Your task to perform on an android device: Open Reddit.com Image 0: 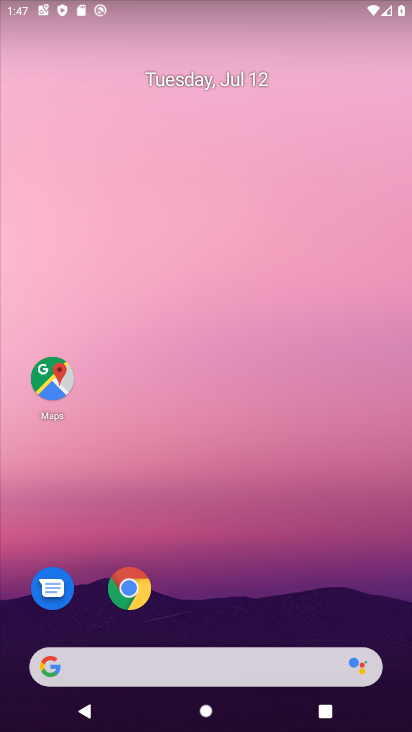
Step 0: drag from (213, 611) to (363, 214)
Your task to perform on an android device: Open Reddit.com Image 1: 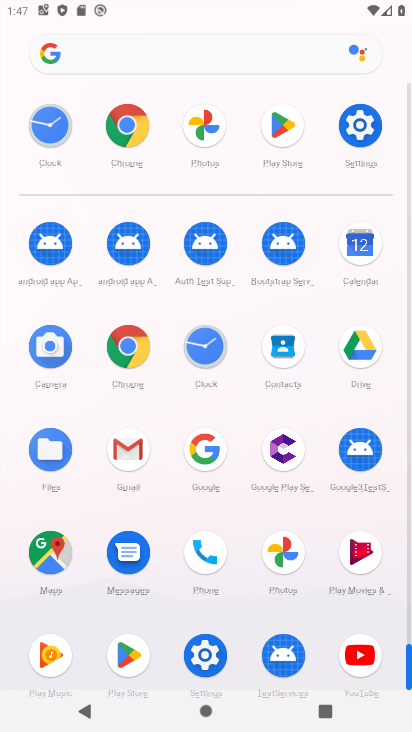
Step 1: click (227, 55)
Your task to perform on an android device: Open Reddit.com Image 2: 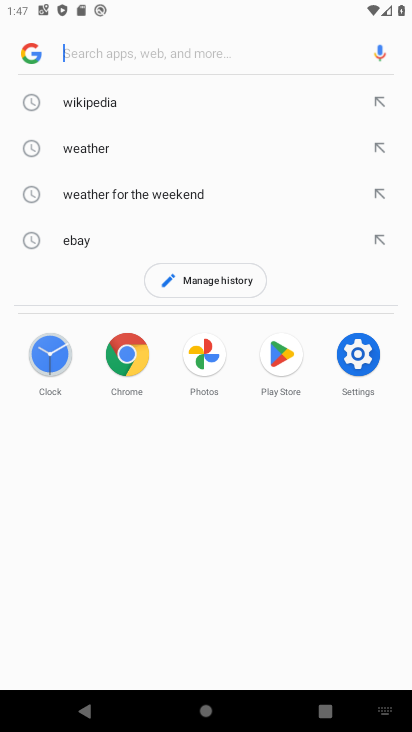
Step 2: type "raddit.com"
Your task to perform on an android device: Open Reddit.com Image 3: 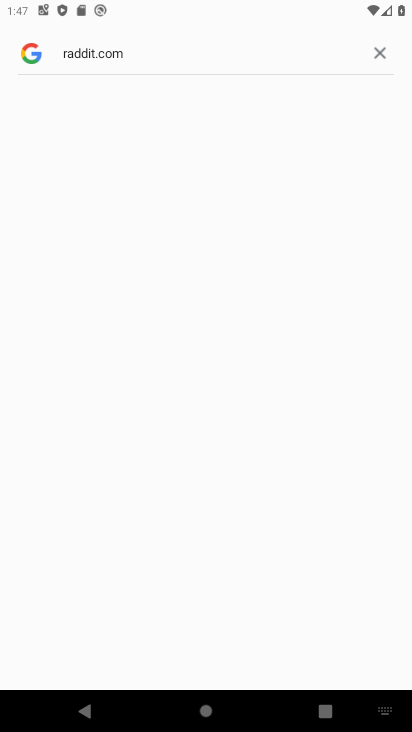
Step 3: click (127, 119)
Your task to perform on an android device: Open Reddit.com Image 4: 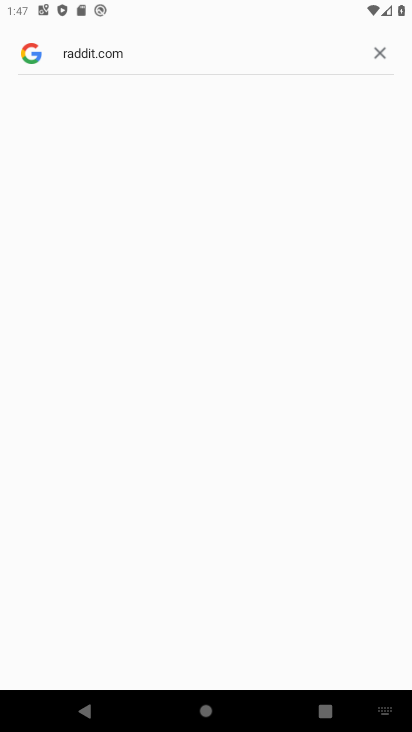
Step 4: drag from (289, 240) to (313, 87)
Your task to perform on an android device: Open Reddit.com Image 5: 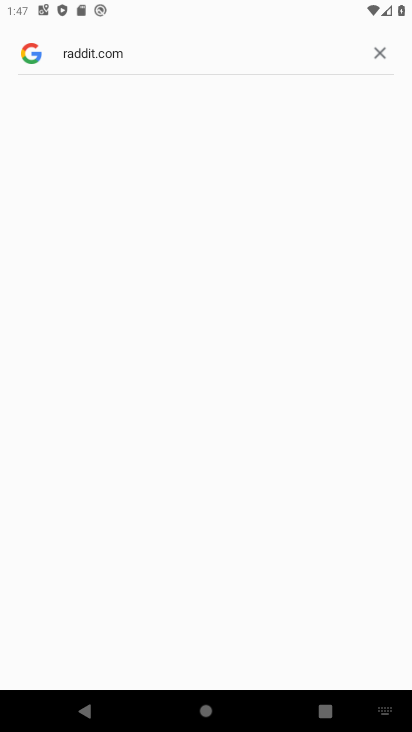
Step 5: drag from (187, 110) to (196, 359)
Your task to perform on an android device: Open Reddit.com Image 6: 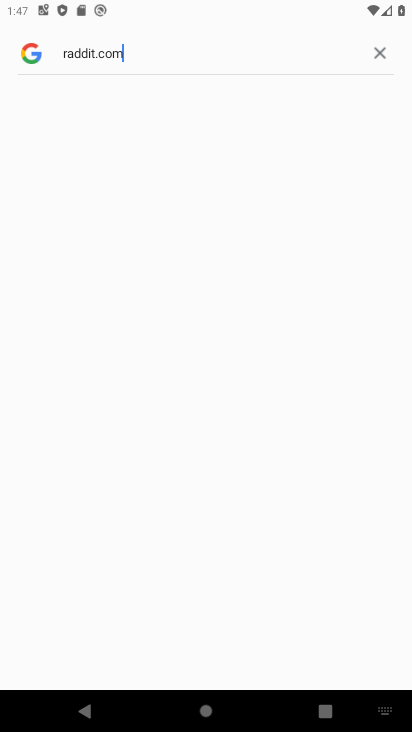
Step 6: click (241, 171)
Your task to perform on an android device: Open Reddit.com Image 7: 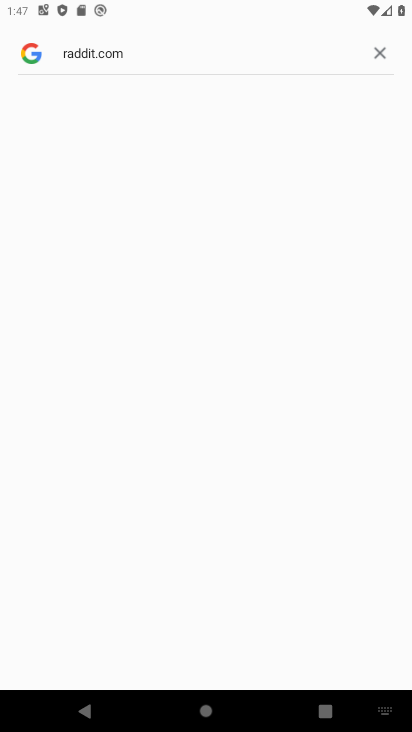
Step 7: click (381, 47)
Your task to perform on an android device: Open Reddit.com Image 8: 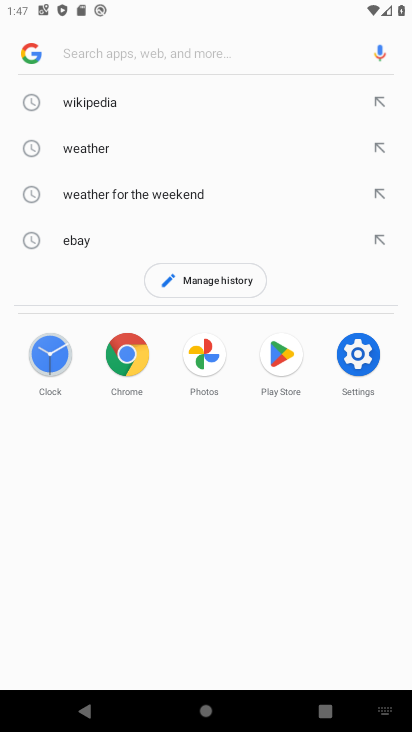
Step 8: press home button
Your task to perform on an android device: Open Reddit.com Image 9: 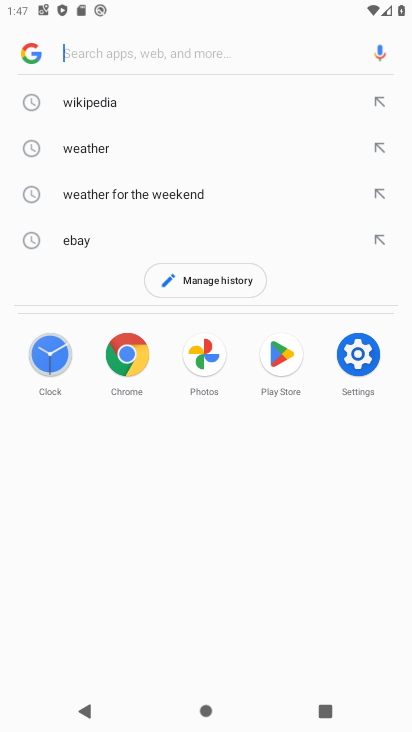
Step 9: drag from (234, 523) to (299, 28)
Your task to perform on an android device: Open Reddit.com Image 10: 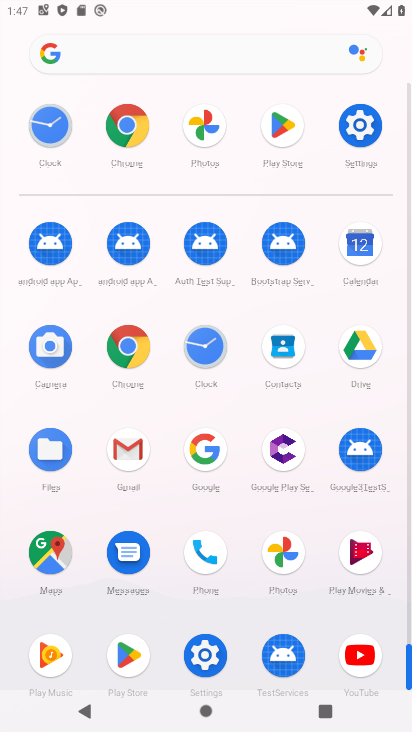
Step 10: click (130, 347)
Your task to perform on an android device: Open Reddit.com Image 11: 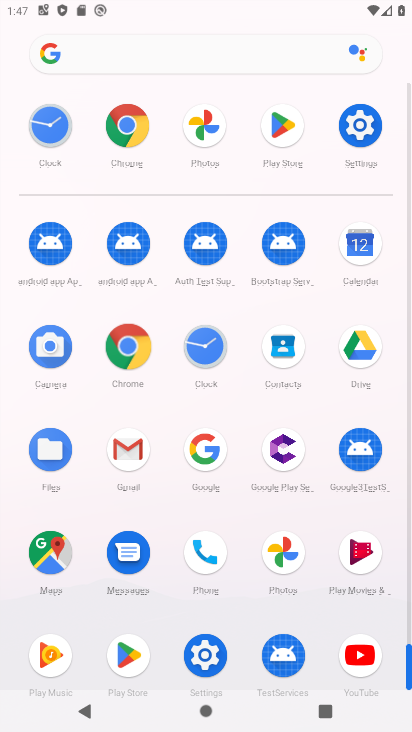
Step 11: click (130, 347)
Your task to perform on an android device: Open Reddit.com Image 12: 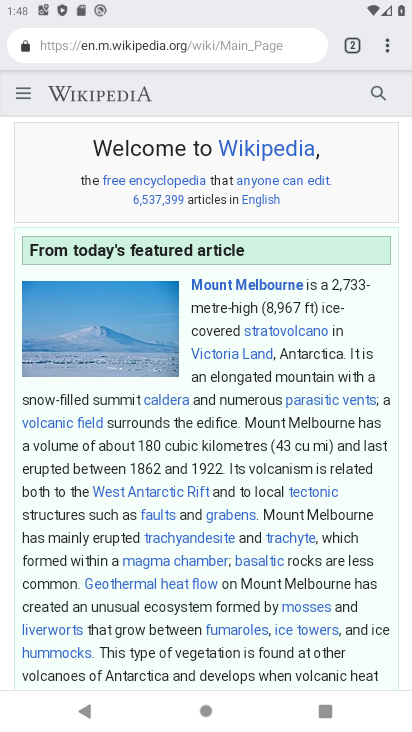
Step 12: drag from (235, 312) to (276, 731)
Your task to perform on an android device: Open Reddit.com Image 13: 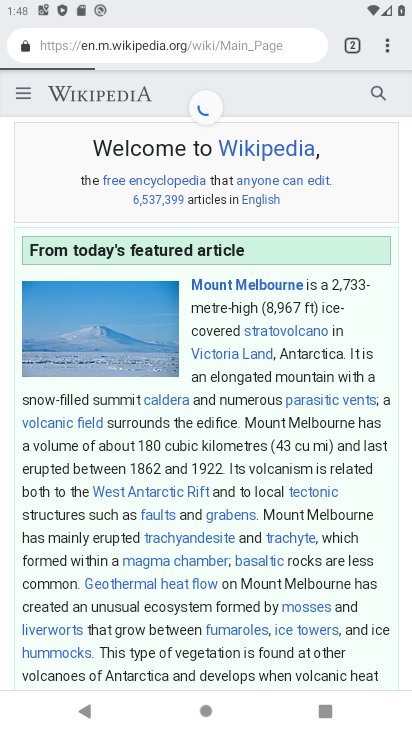
Step 13: click (173, 47)
Your task to perform on an android device: Open Reddit.com Image 14: 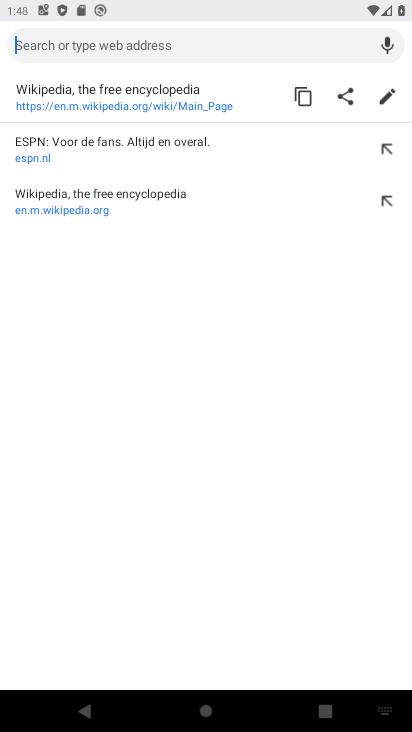
Step 14: type "reddit.com"
Your task to perform on an android device: Open Reddit.com Image 15: 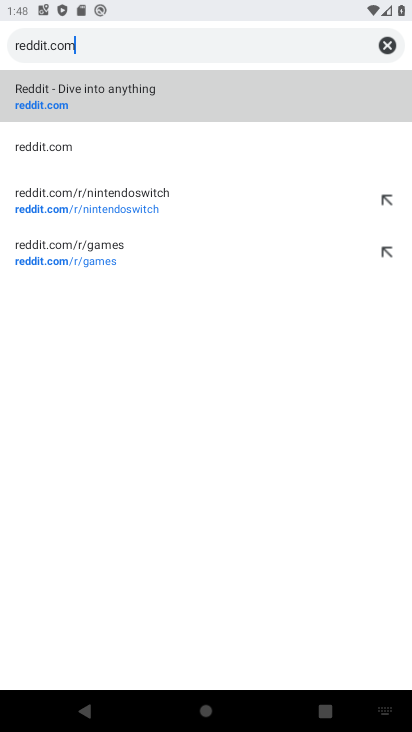
Step 15: click (34, 106)
Your task to perform on an android device: Open Reddit.com Image 16: 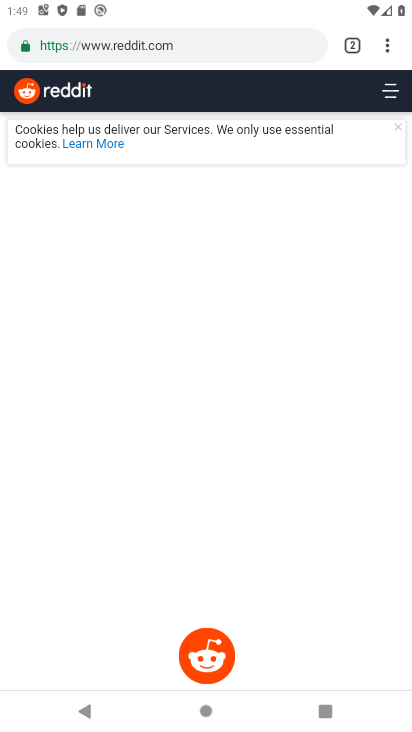
Step 16: task complete